Your task to perform on an android device: turn on location history Image 0: 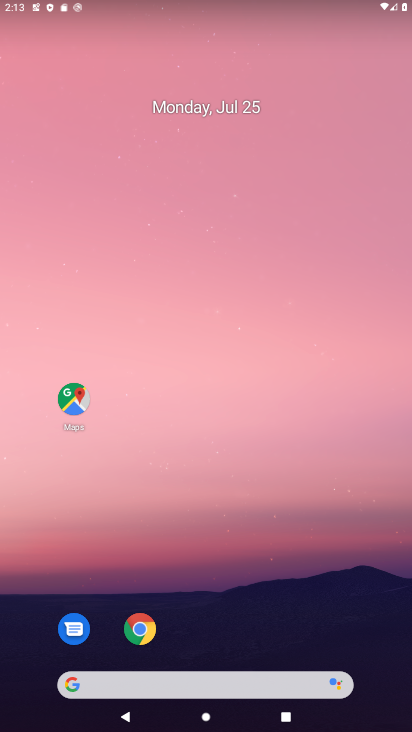
Step 0: drag from (178, 650) to (217, 308)
Your task to perform on an android device: turn on location history Image 1: 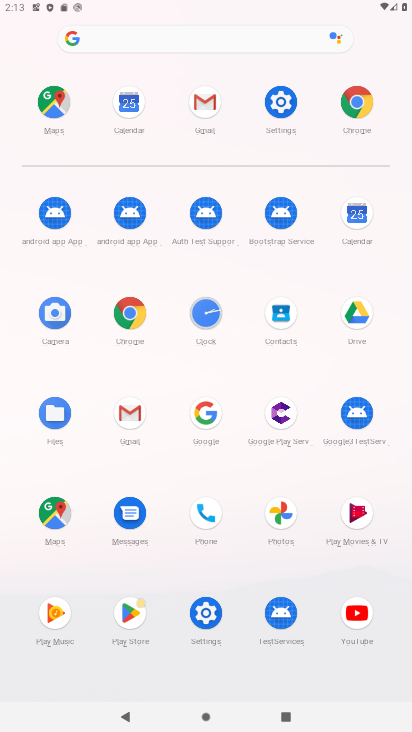
Step 1: click (201, 619)
Your task to perform on an android device: turn on location history Image 2: 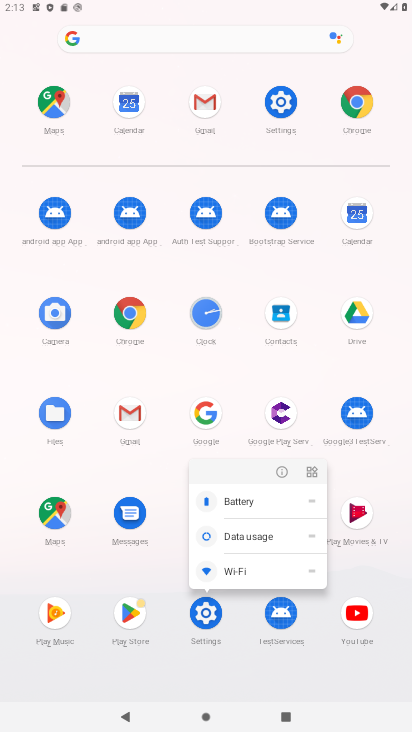
Step 2: click (280, 472)
Your task to perform on an android device: turn on location history Image 3: 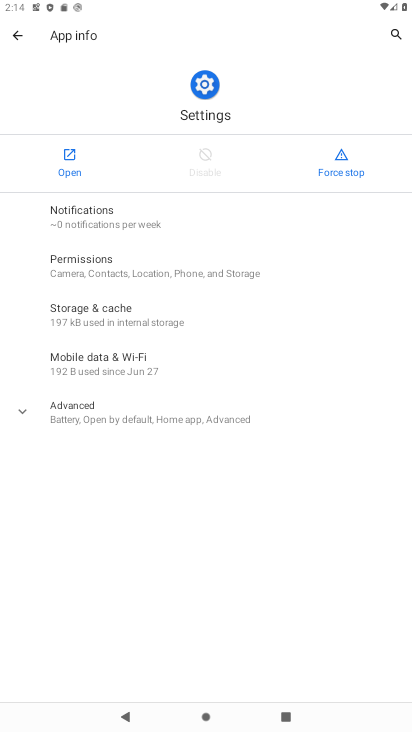
Step 3: click (66, 157)
Your task to perform on an android device: turn on location history Image 4: 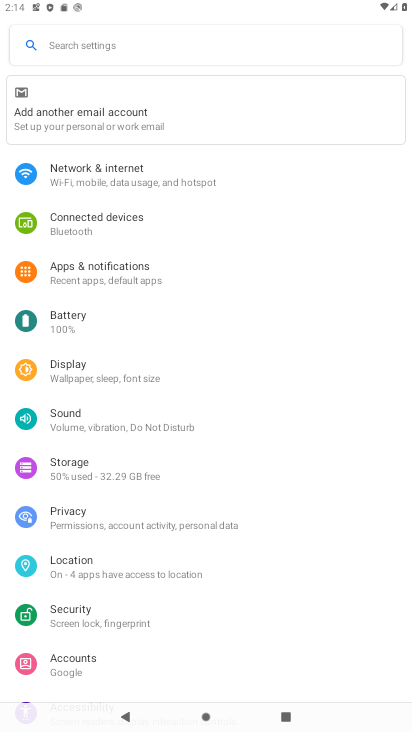
Step 4: click (93, 560)
Your task to perform on an android device: turn on location history Image 5: 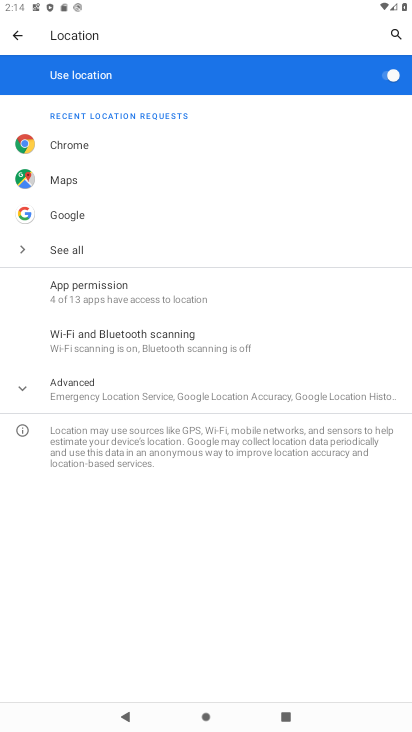
Step 5: click (127, 388)
Your task to perform on an android device: turn on location history Image 6: 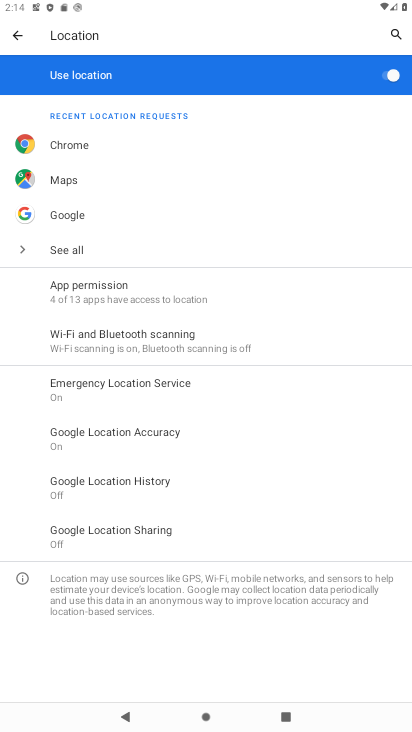
Step 6: click (125, 483)
Your task to perform on an android device: turn on location history Image 7: 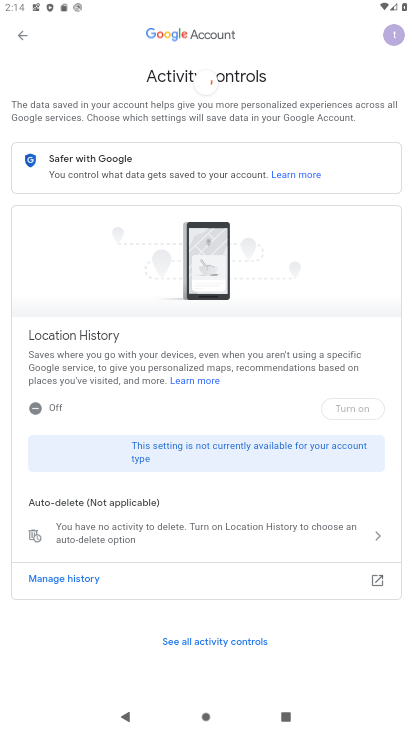
Step 7: drag from (193, 559) to (186, 307)
Your task to perform on an android device: turn on location history Image 8: 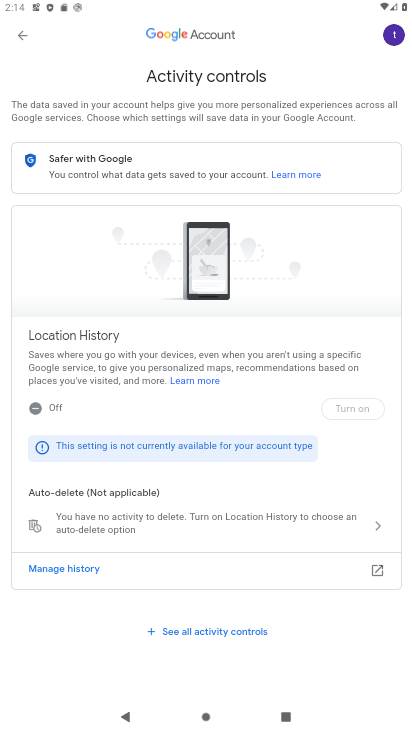
Step 8: drag from (185, 320) to (195, 623)
Your task to perform on an android device: turn on location history Image 9: 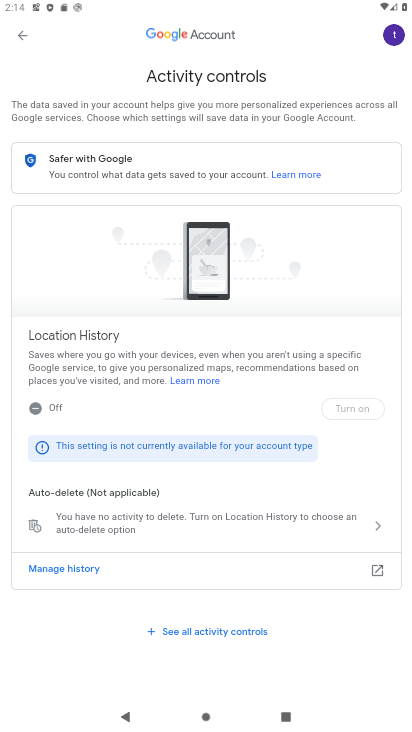
Step 9: drag from (236, 566) to (331, 235)
Your task to perform on an android device: turn on location history Image 10: 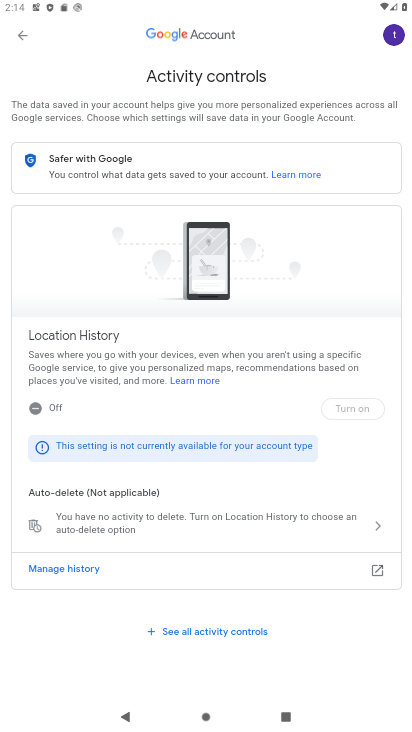
Step 10: drag from (251, 454) to (251, 367)
Your task to perform on an android device: turn on location history Image 11: 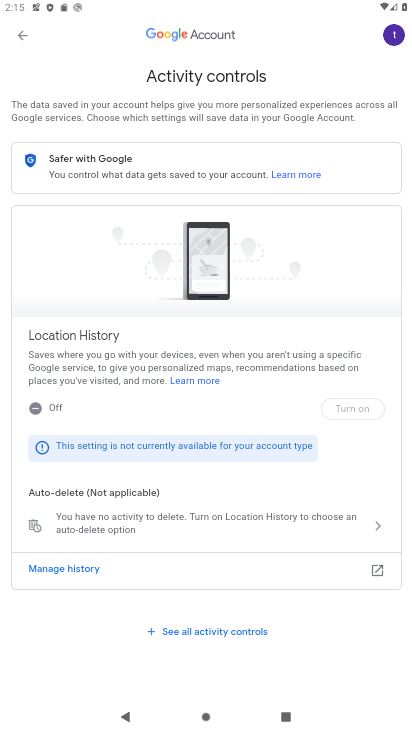
Step 11: click (205, 337)
Your task to perform on an android device: turn on location history Image 12: 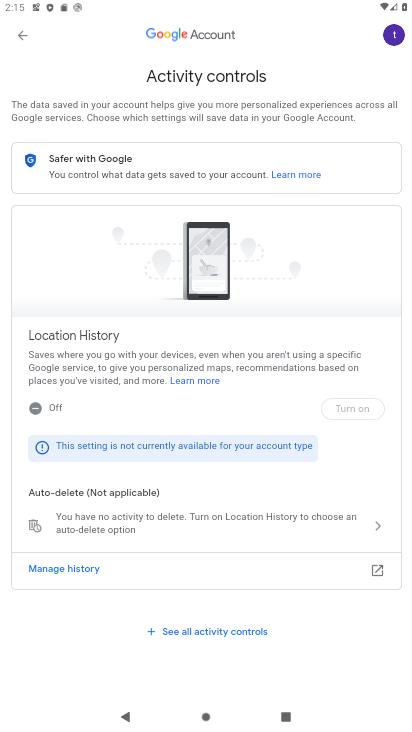
Step 12: drag from (199, 189) to (220, 542)
Your task to perform on an android device: turn on location history Image 13: 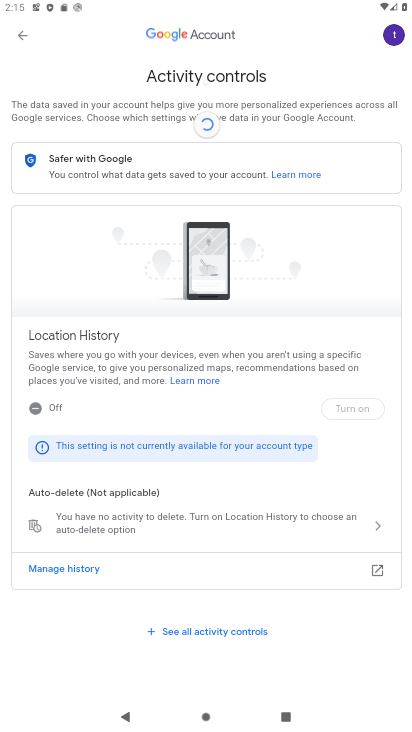
Step 13: drag from (169, 365) to (211, 51)
Your task to perform on an android device: turn on location history Image 14: 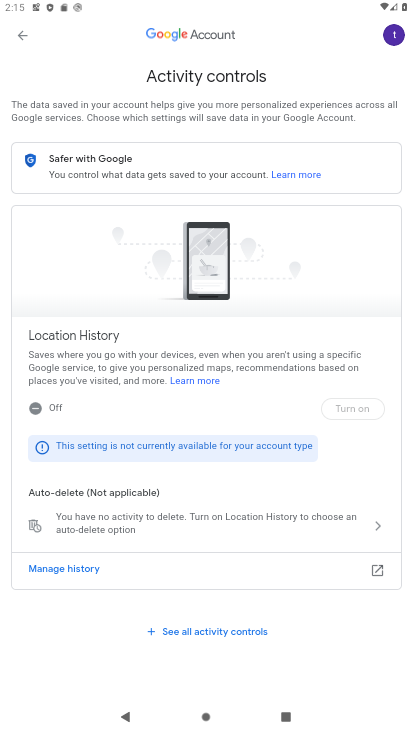
Step 14: drag from (137, 378) to (198, 187)
Your task to perform on an android device: turn on location history Image 15: 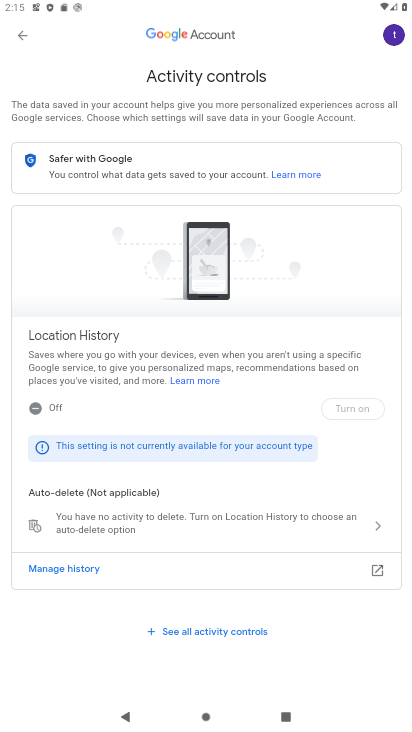
Step 15: drag from (108, 383) to (150, 272)
Your task to perform on an android device: turn on location history Image 16: 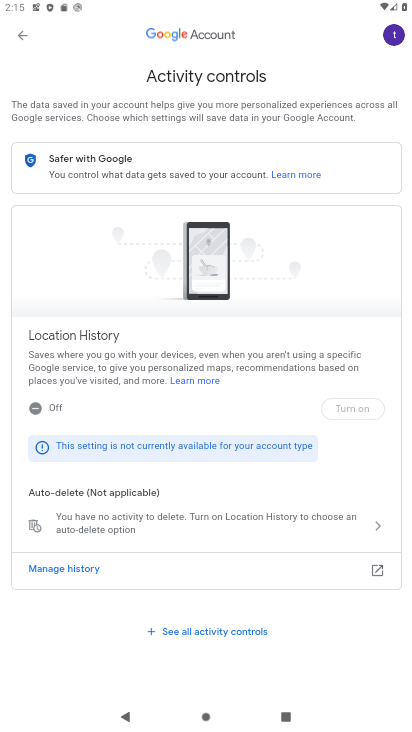
Step 16: drag from (243, 340) to (258, 250)
Your task to perform on an android device: turn on location history Image 17: 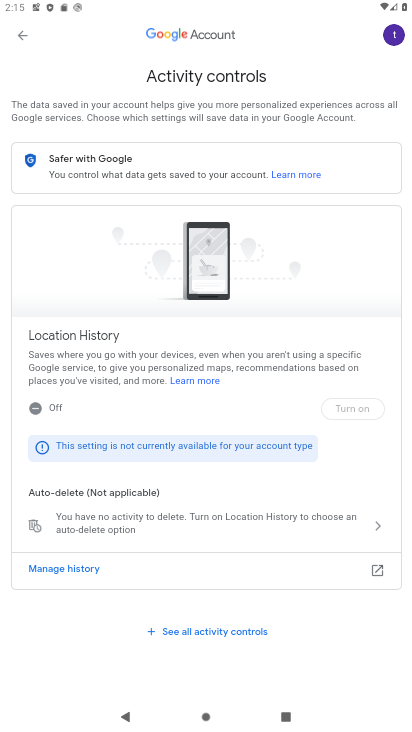
Step 17: drag from (253, 414) to (283, 275)
Your task to perform on an android device: turn on location history Image 18: 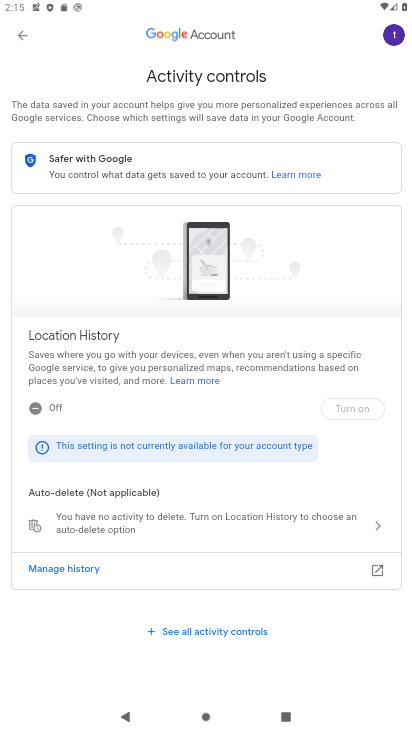
Step 18: drag from (221, 538) to (270, 297)
Your task to perform on an android device: turn on location history Image 19: 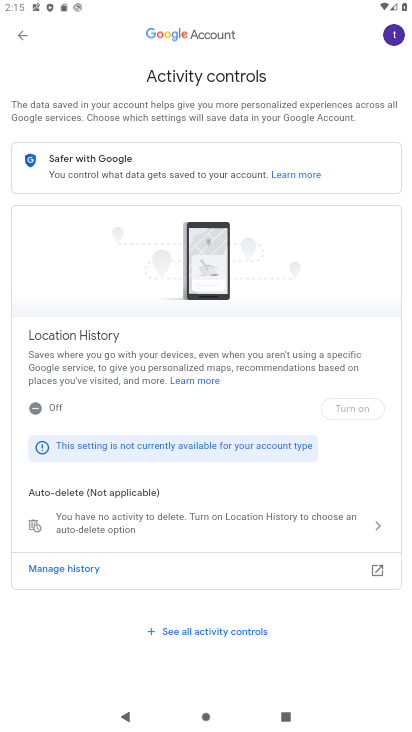
Step 19: drag from (230, 469) to (277, 281)
Your task to perform on an android device: turn on location history Image 20: 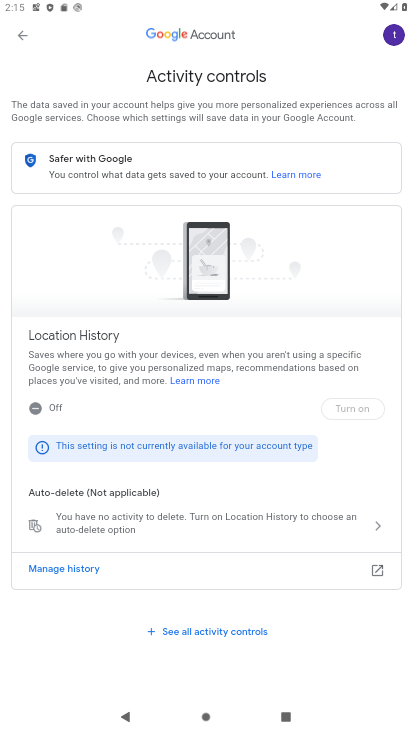
Step 20: drag from (243, 503) to (281, 294)
Your task to perform on an android device: turn on location history Image 21: 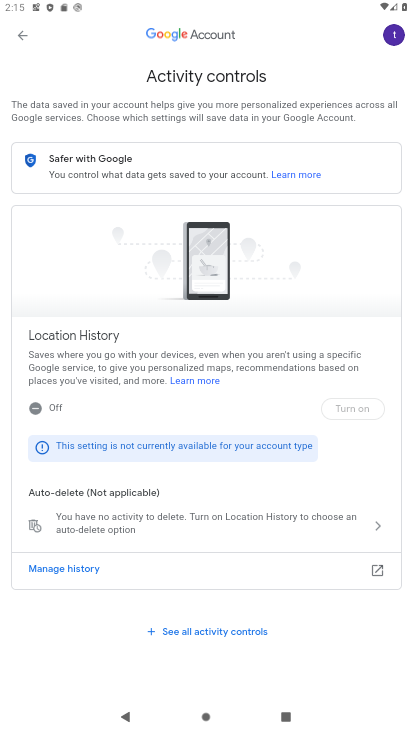
Step 21: drag from (244, 499) to (255, 308)
Your task to perform on an android device: turn on location history Image 22: 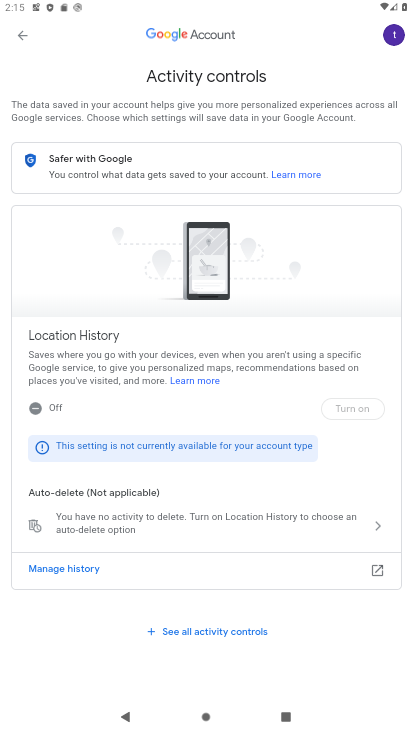
Step 22: click (352, 404)
Your task to perform on an android device: turn on location history Image 23: 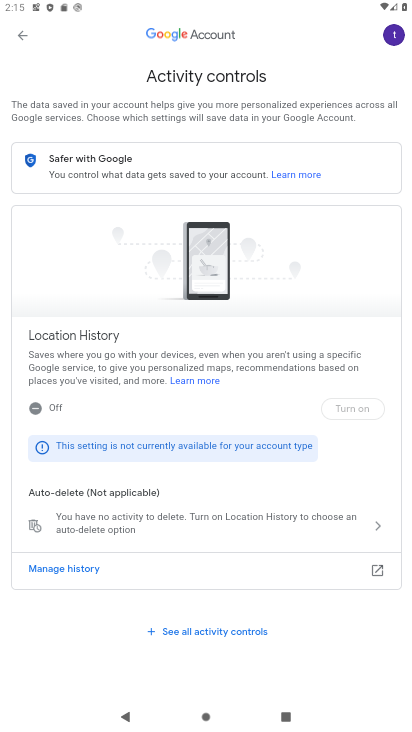
Step 23: task complete